Your task to perform on an android device: What is the news today? Image 0: 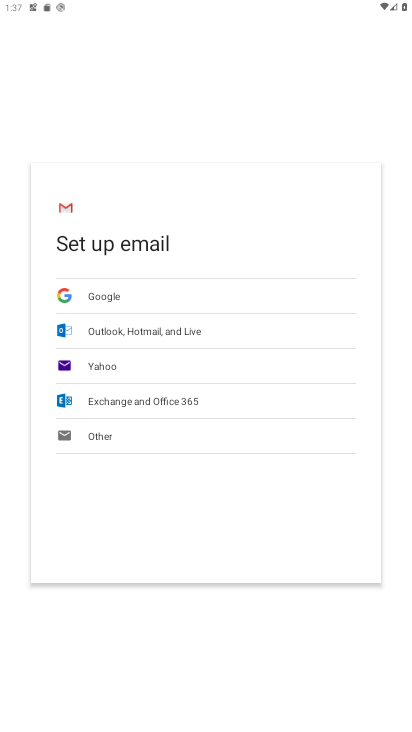
Step 0: press home button
Your task to perform on an android device: What is the news today? Image 1: 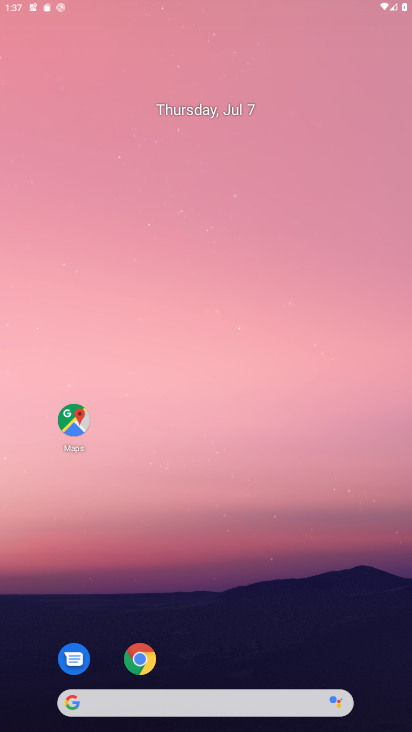
Step 1: drag from (235, 611) to (248, 221)
Your task to perform on an android device: What is the news today? Image 2: 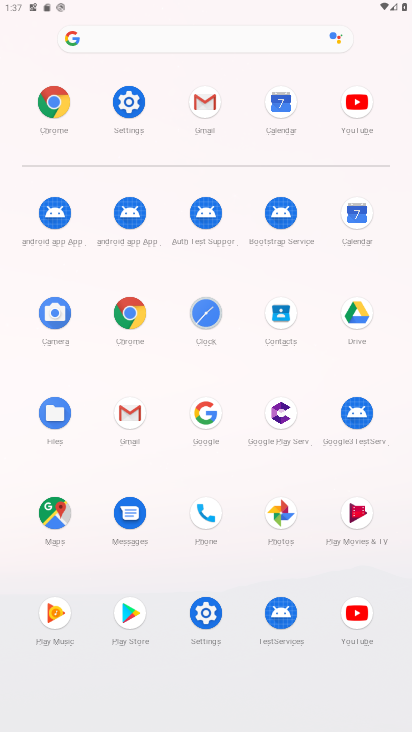
Step 2: click (146, 39)
Your task to perform on an android device: What is the news today? Image 3: 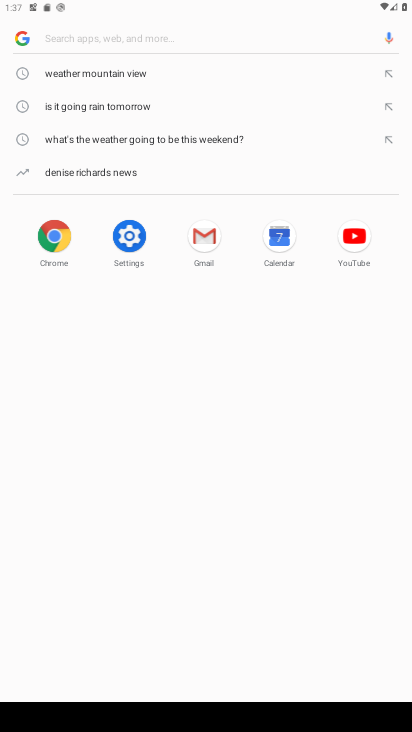
Step 3: click (161, 32)
Your task to perform on an android device: What is the news today? Image 4: 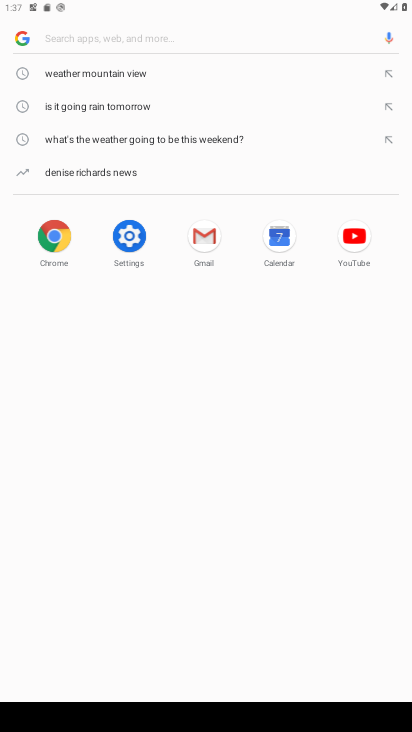
Step 4: type "news today?"
Your task to perform on an android device: What is the news today? Image 5: 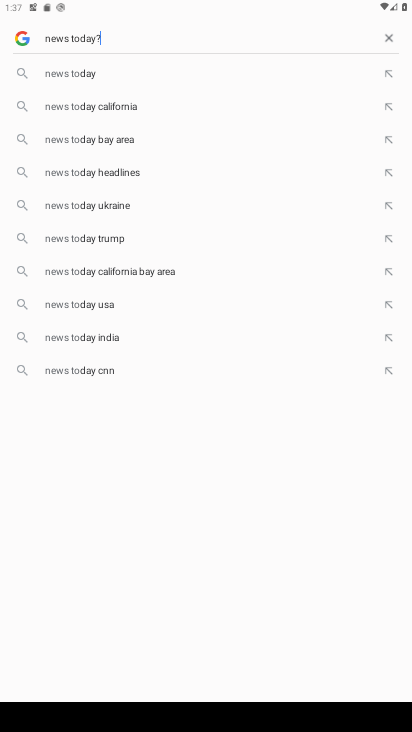
Step 5: type ""
Your task to perform on an android device: What is the news today? Image 6: 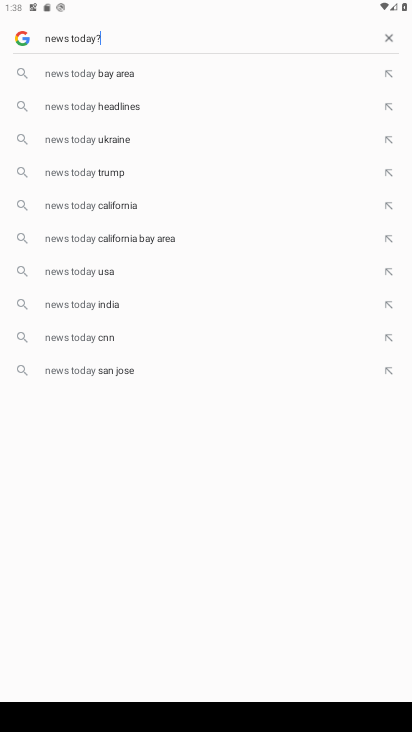
Step 6: click (113, 341)
Your task to perform on an android device: What is the news today? Image 7: 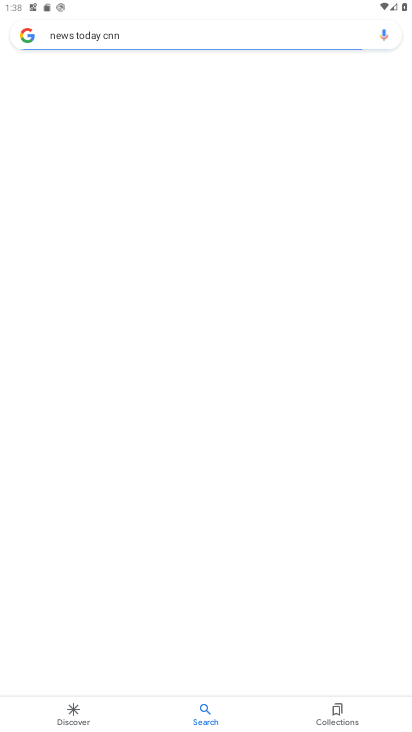
Step 7: drag from (218, 526) to (243, 264)
Your task to perform on an android device: What is the news today? Image 8: 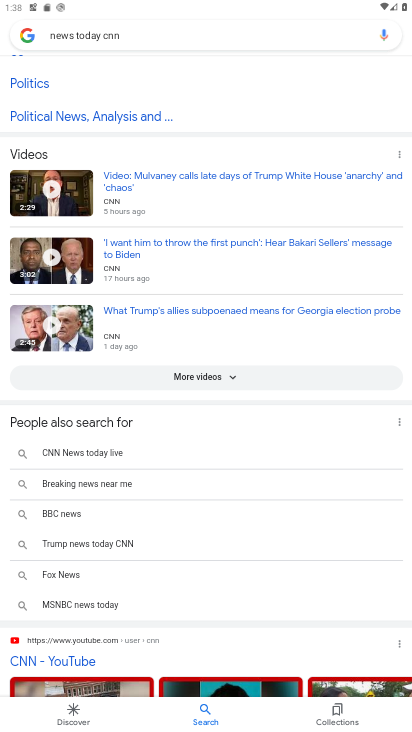
Step 8: drag from (220, 92) to (219, 713)
Your task to perform on an android device: What is the news today? Image 9: 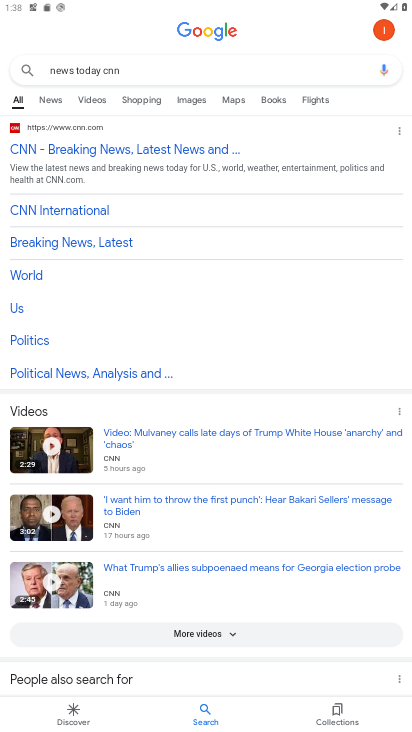
Step 9: drag from (200, 303) to (296, 648)
Your task to perform on an android device: What is the news today? Image 10: 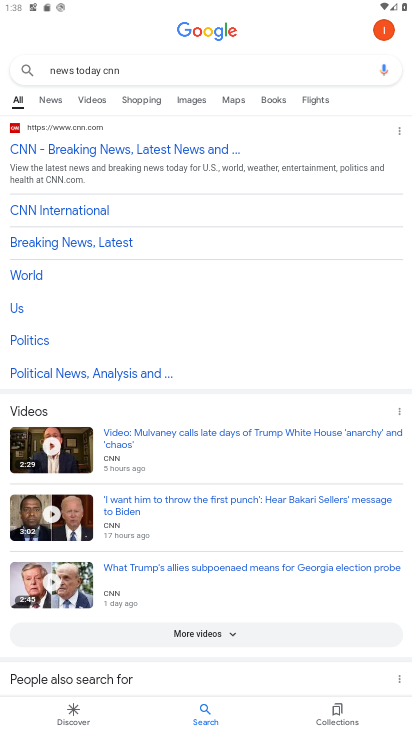
Step 10: click (47, 152)
Your task to perform on an android device: What is the news today? Image 11: 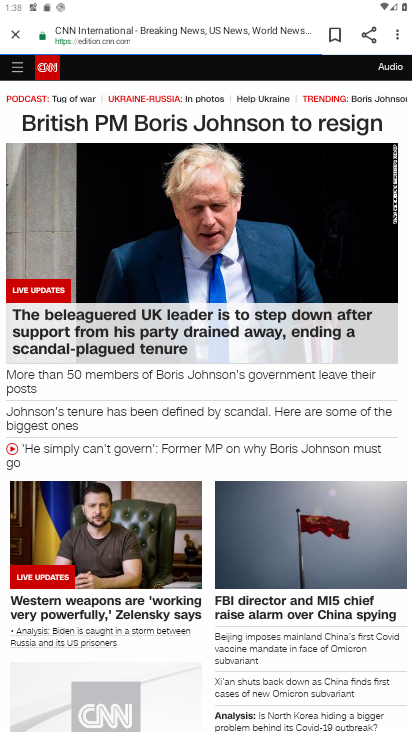
Step 11: task complete